Your task to perform on an android device: Open notification settings Image 0: 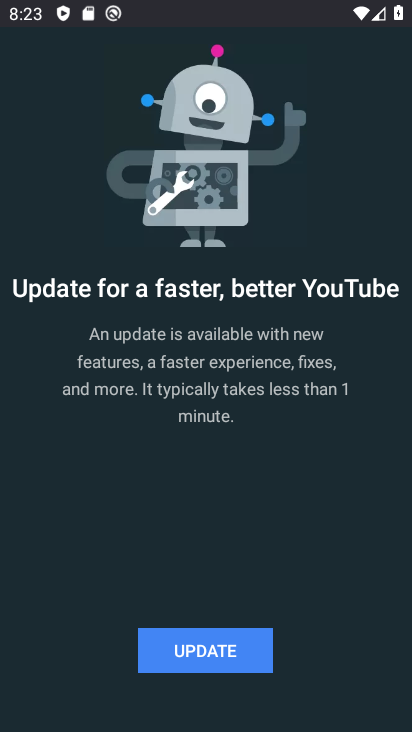
Step 0: click (162, 606)
Your task to perform on an android device: Open notification settings Image 1: 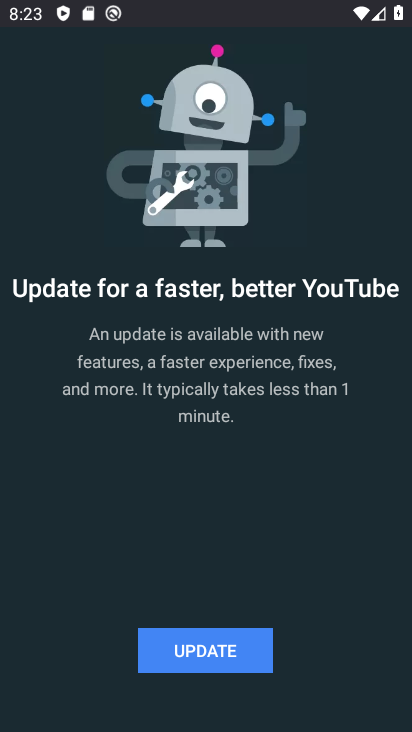
Step 1: press home button
Your task to perform on an android device: Open notification settings Image 2: 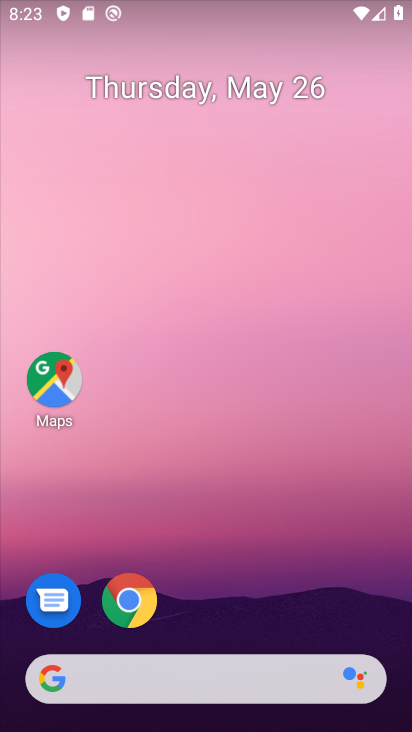
Step 2: drag from (178, 614) to (216, 295)
Your task to perform on an android device: Open notification settings Image 3: 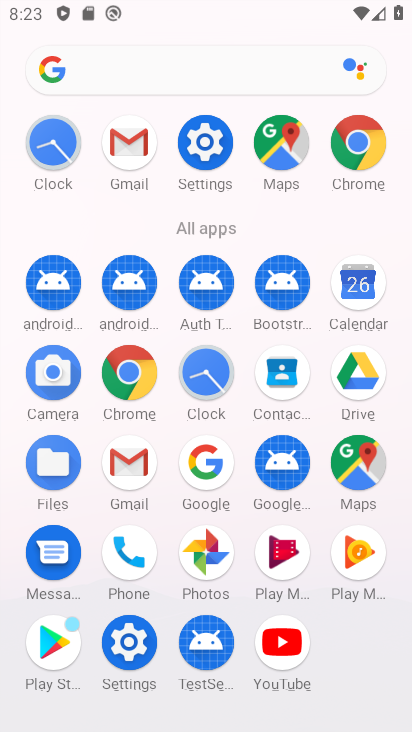
Step 3: click (218, 145)
Your task to perform on an android device: Open notification settings Image 4: 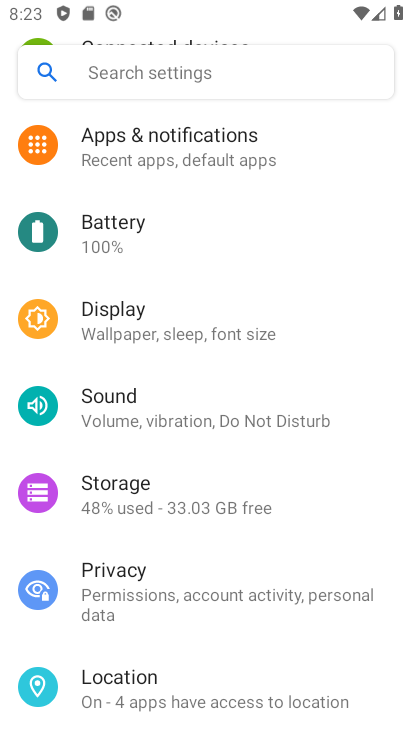
Step 4: click (229, 126)
Your task to perform on an android device: Open notification settings Image 5: 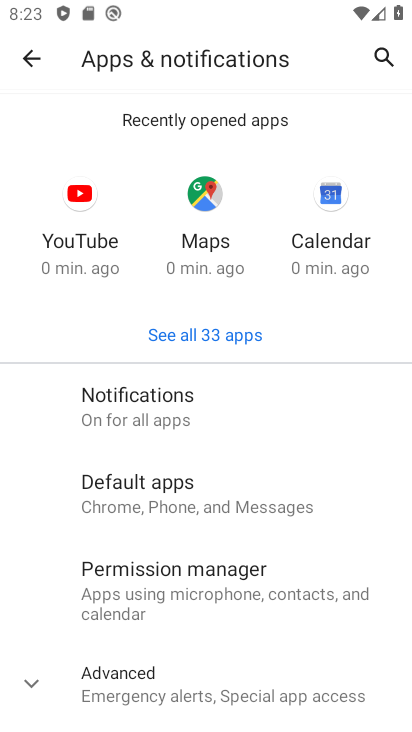
Step 5: task complete